Your task to perform on an android device: turn on location history Image 0: 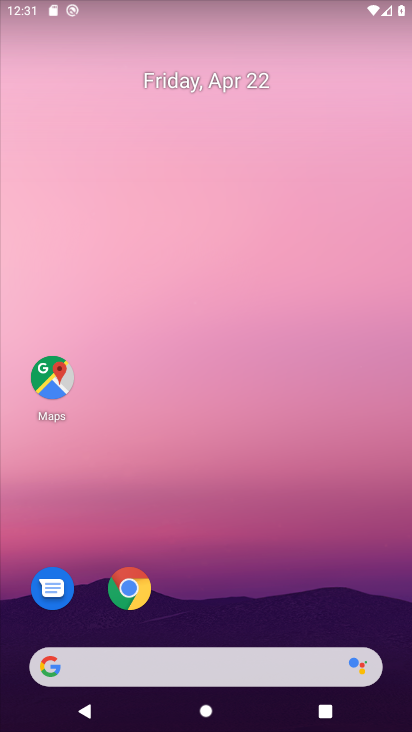
Step 0: press home button
Your task to perform on an android device: turn on location history Image 1: 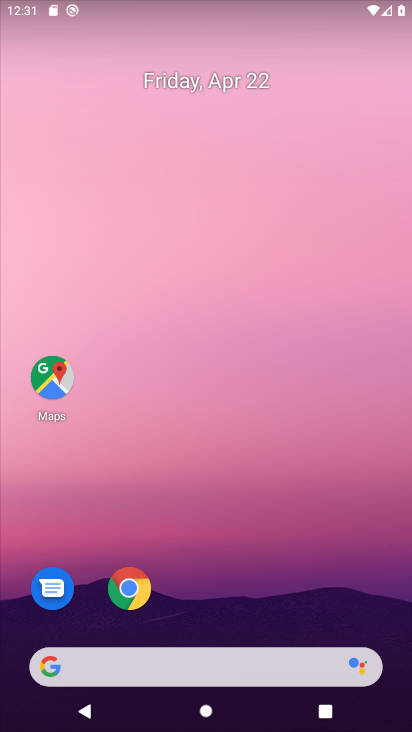
Step 1: drag from (315, 597) to (254, 195)
Your task to perform on an android device: turn on location history Image 2: 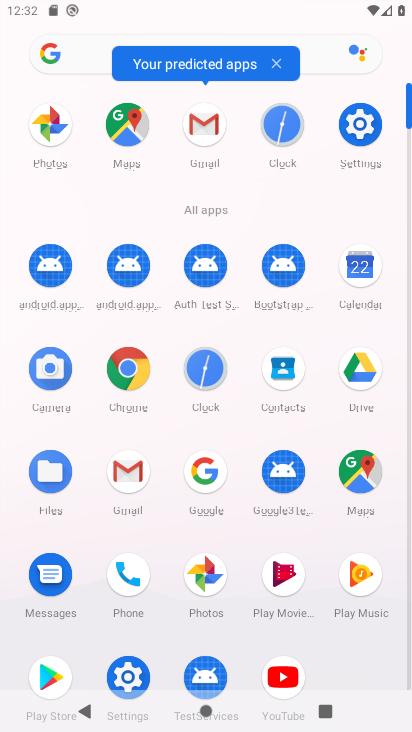
Step 2: click (121, 677)
Your task to perform on an android device: turn on location history Image 3: 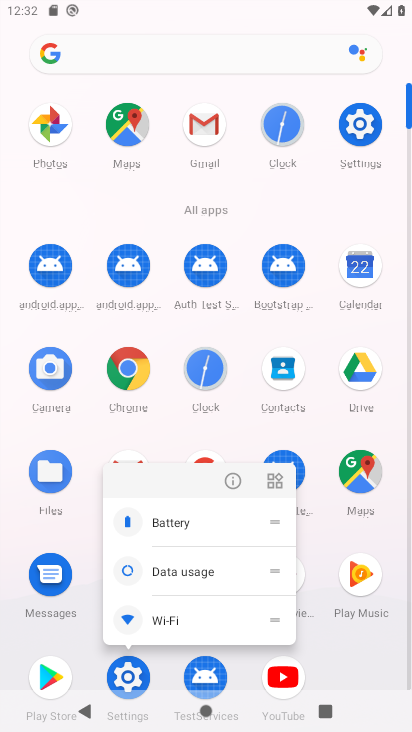
Step 3: click (125, 677)
Your task to perform on an android device: turn on location history Image 4: 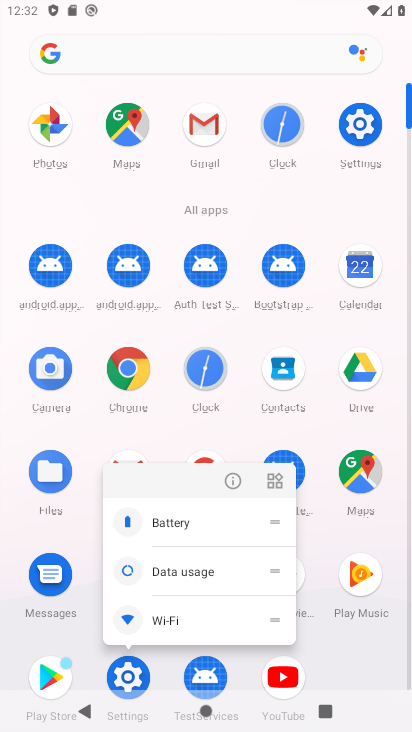
Step 4: click (132, 677)
Your task to perform on an android device: turn on location history Image 5: 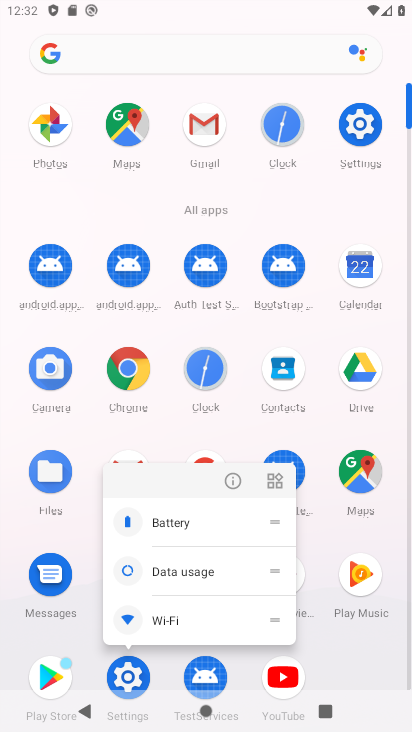
Step 5: click (135, 663)
Your task to perform on an android device: turn on location history Image 6: 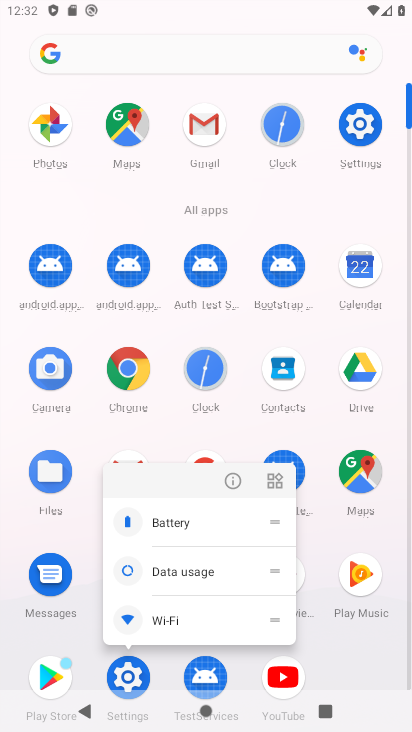
Step 6: click (136, 674)
Your task to perform on an android device: turn on location history Image 7: 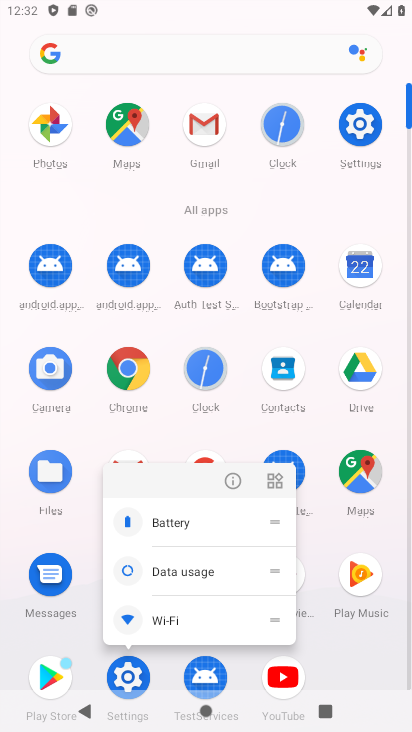
Step 7: click (355, 135)
Your task to perform on an android device: turn on location history Image 8: 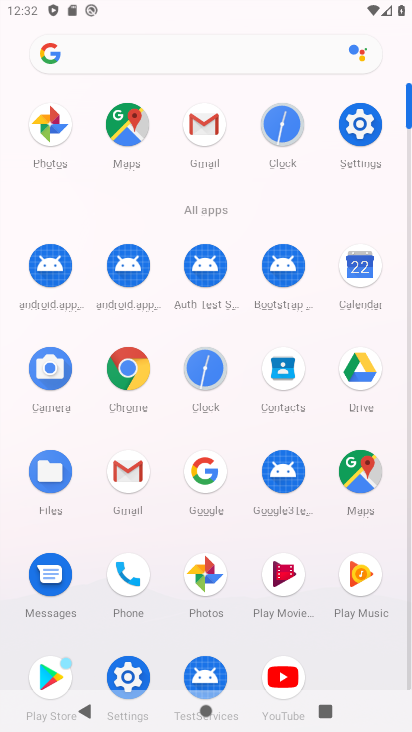
Step 8: click (364, 121)
Your task to perform on an android device: turn on location history Image 9: 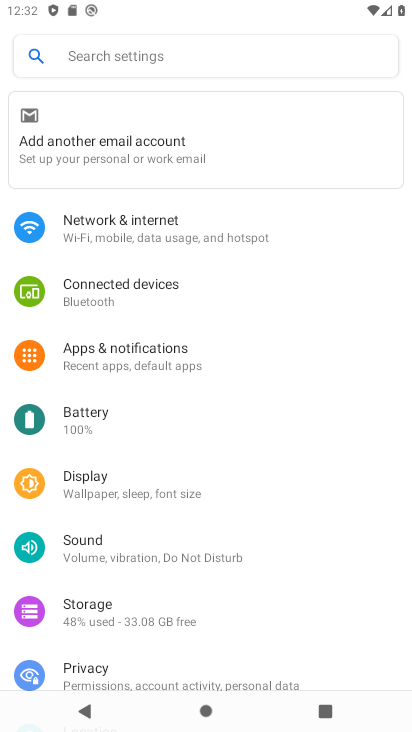
Step 9: drag from (173, 632) to (288, 288)
Your task to perform on an android device: turn on location history Image 10: 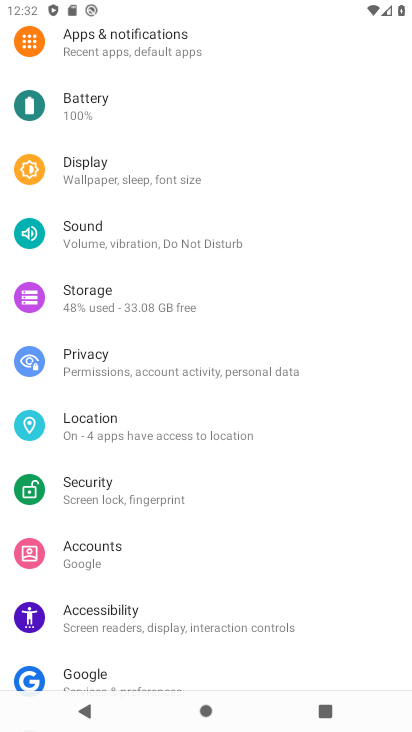
Step 10: click (167, 433)
Your task to perform on an android device: turn on location history Image 11: 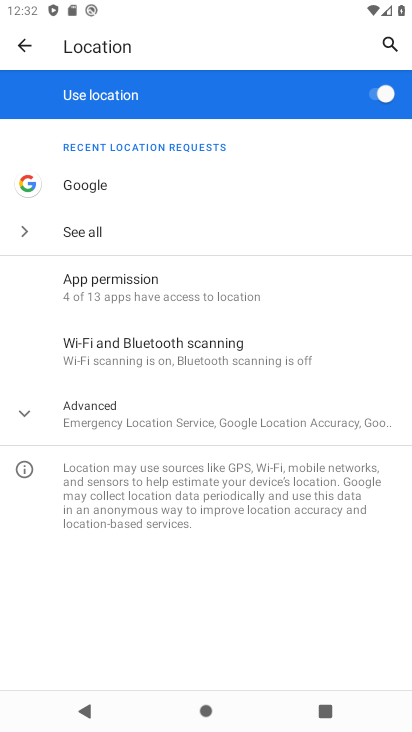
Step 11: click (169, 417)
Your task to perform on an android device: turn on location history Image 12: 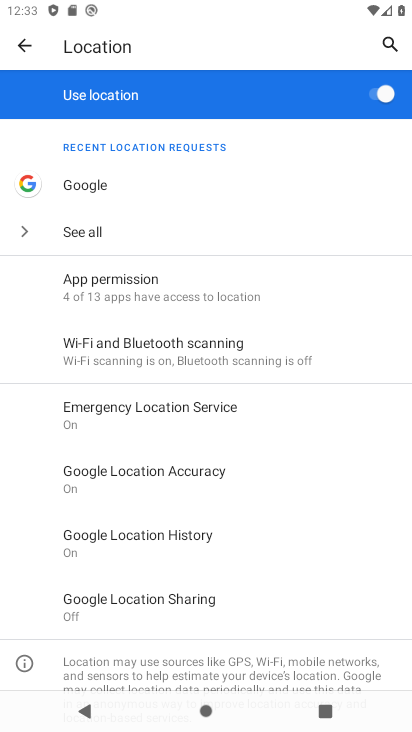
Step 12: task complete